Your task to perform on an android device: Open accessibility settings Image 0: 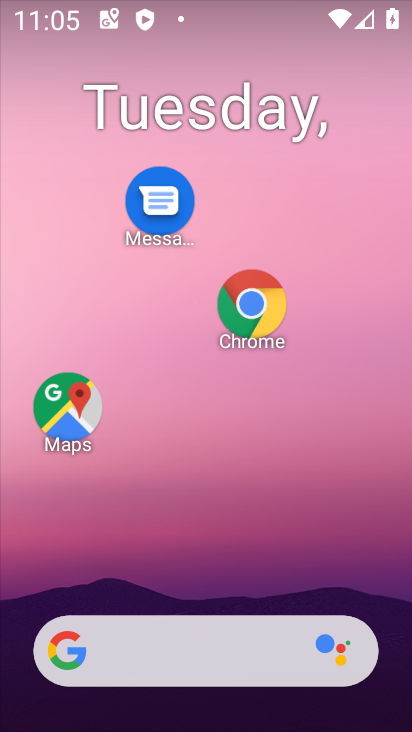
Step 0: drag from (237, 662) to (277, 132)
Your task to perform on an android device: Open accessibility settings Image 1: 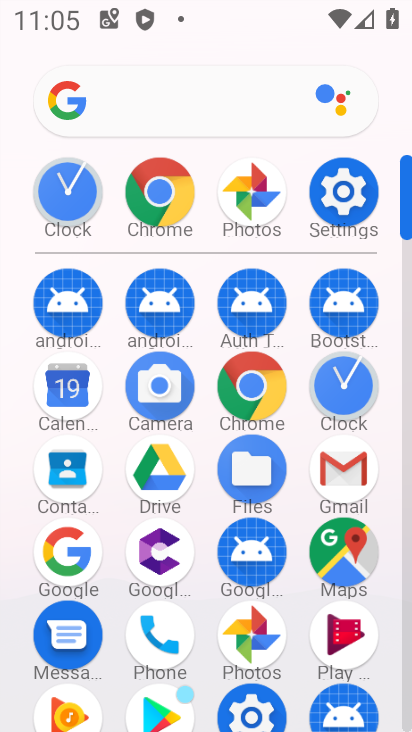
Step 1: click (336, 194)
Your task to perform on an android device: Open accessibility settings Image 2: 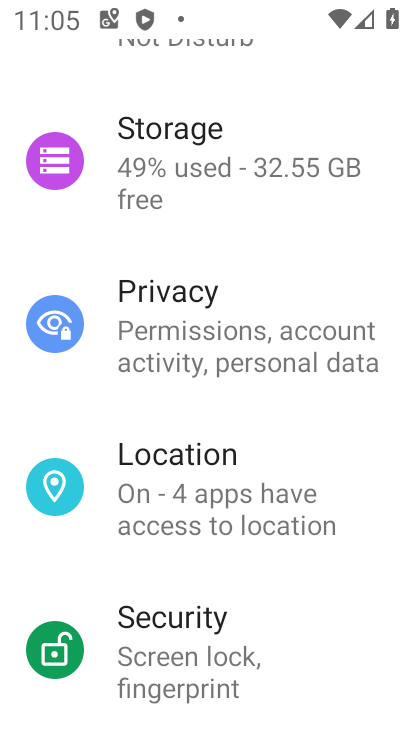
Step 2: drag from (287, 640) to (341, 64)
Your task to perform on an android device: Open accessibility settings Image 3: 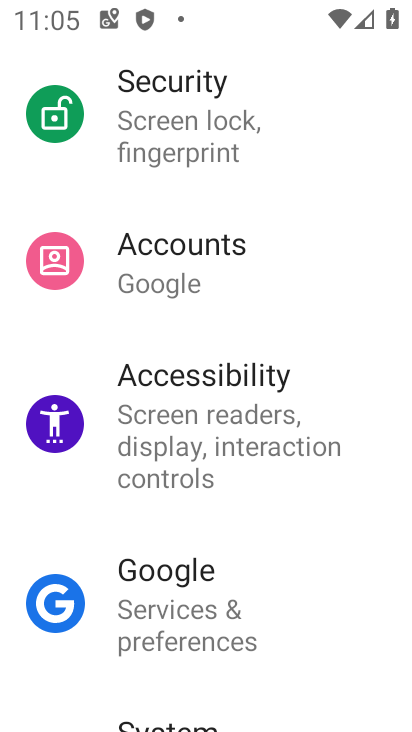
Step 3: click (224, 375)
Your task to perform on an android device: Open accessibility settings Image 4: 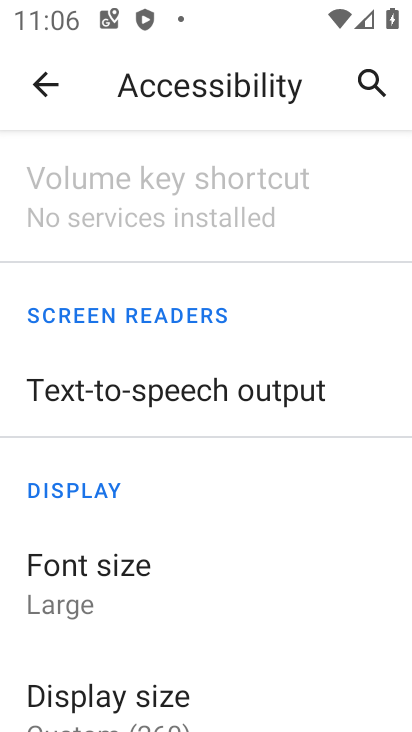
Step 4: task complete